Your task to perform on an android device: Search for vegetarian restaurants on Maps Image 0: 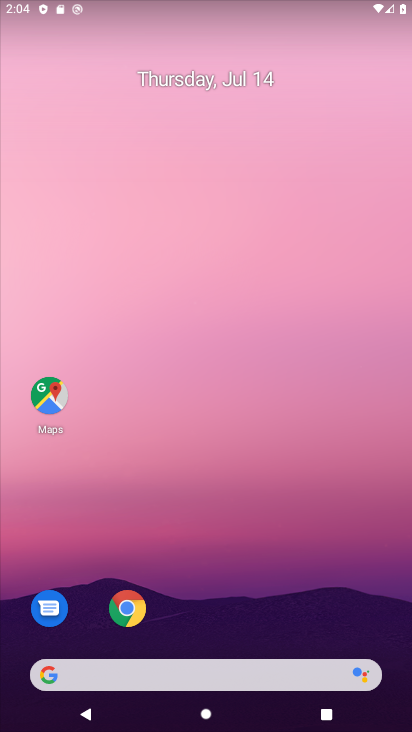
Step 0: click (43, 388)
Your task to perform on an android device: Search for vegetarian restaurants on Maps Image 1: 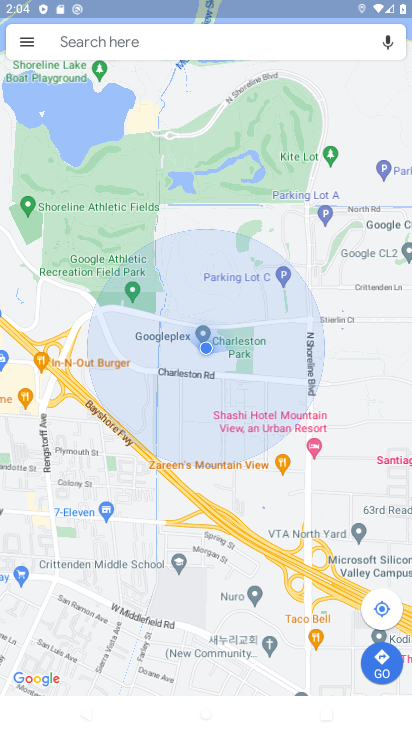
Step 1: click (212, 36)
Your task to perform on an android device: Search for vegetarian restaurants on Maps Image 2: 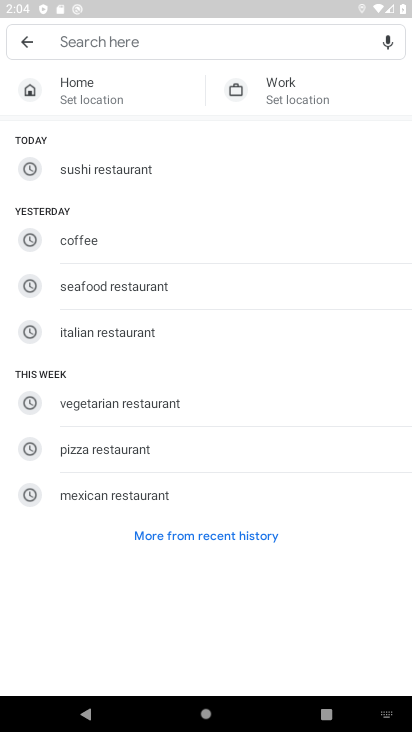
Step 2: click (210, 411)
Your task to perform on an android device: Search for vegetarian restaurants on Maps Image 3: 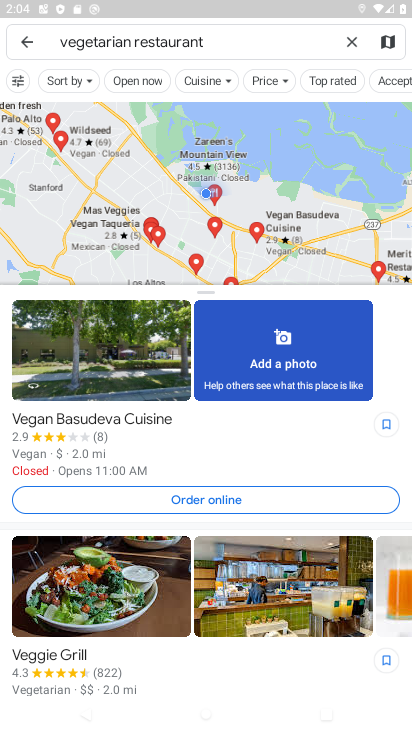
Step 3: task complete